Your task to perform on an android device: change the upload size in google photos Image 0: 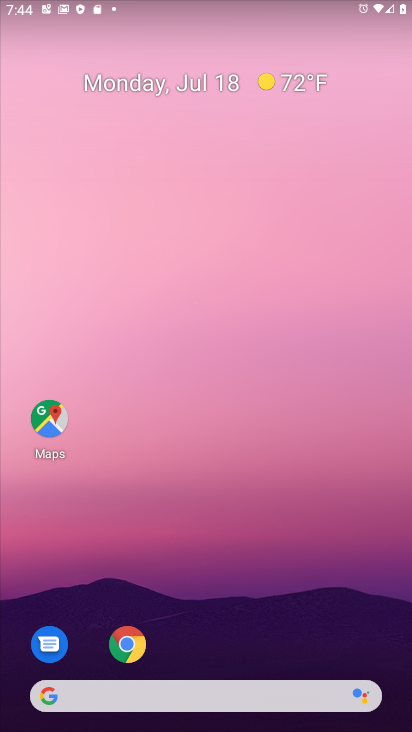
Step 0: drag from (401, 671) to (311, 90)
Your task to perform on an android device: change the upload size in google photos Image 1: 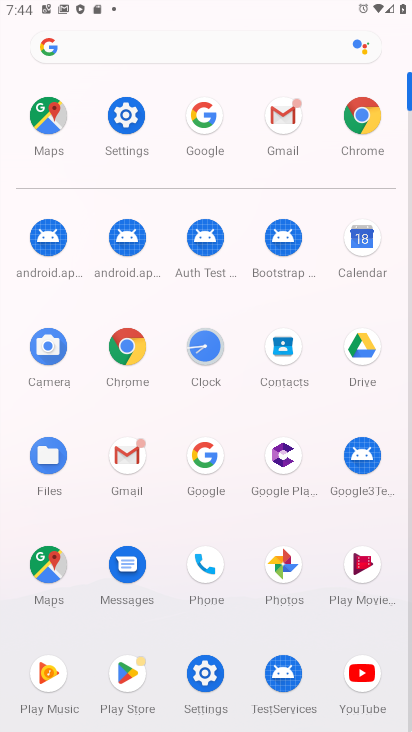
Step 1: click (268, 561)
Your task to perform on an android device: change the upload size in google photos Image 2: 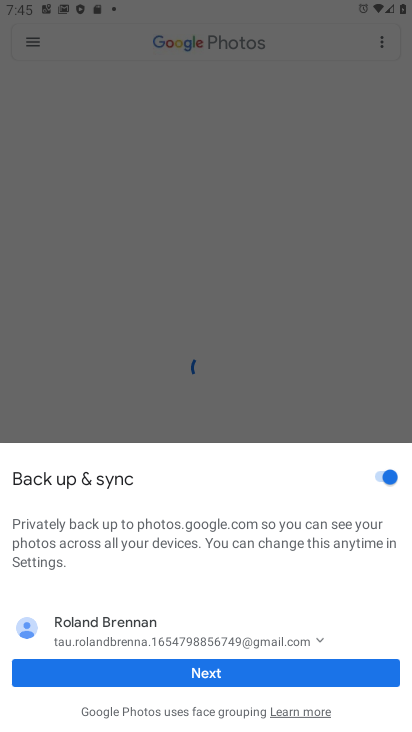
Step 2: click (167, 669)
Your task to perform on an android device: change the upload size in google photos Image 3: 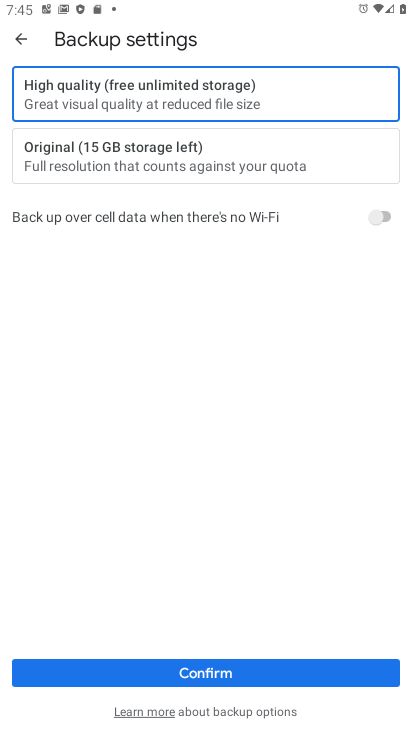
Step 3: click (167, 669)
Your task to perform on an android device: change the upload size in google photos Image 4: 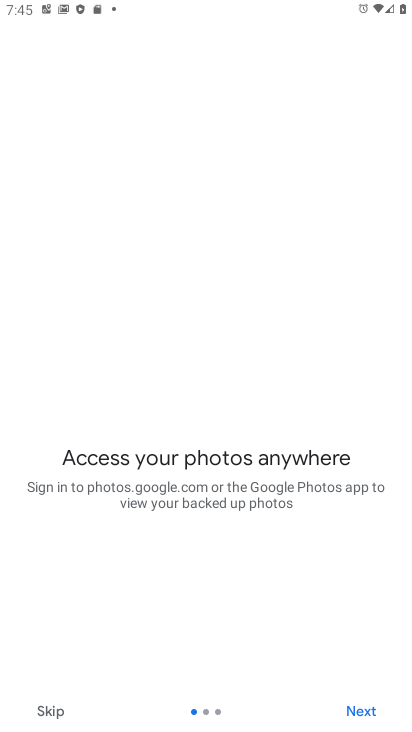
Step 4: click (345, 701)
Your task to perform on an android device: change the upload size in google photos Image 5: 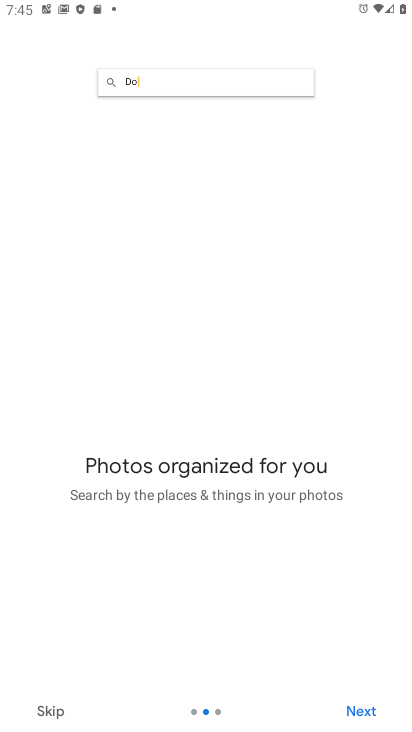
Step 5: click (350, 706)
Your task to perform on an android device: change the upload size in google photos Image 6: 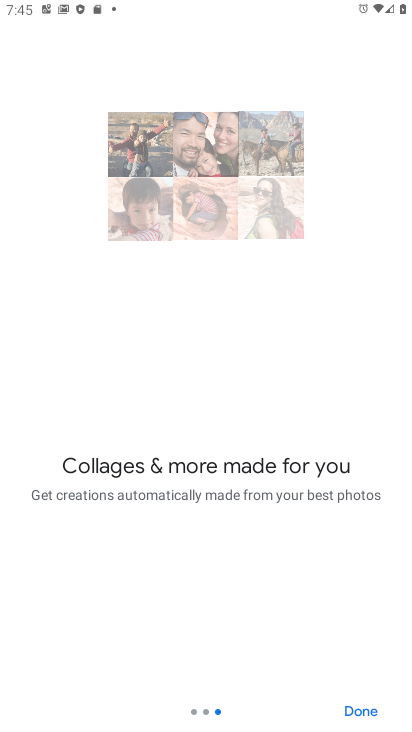
Step 6: click (350, 706)
Your task to perform on an android device: change the upload size in google photos Image 7: 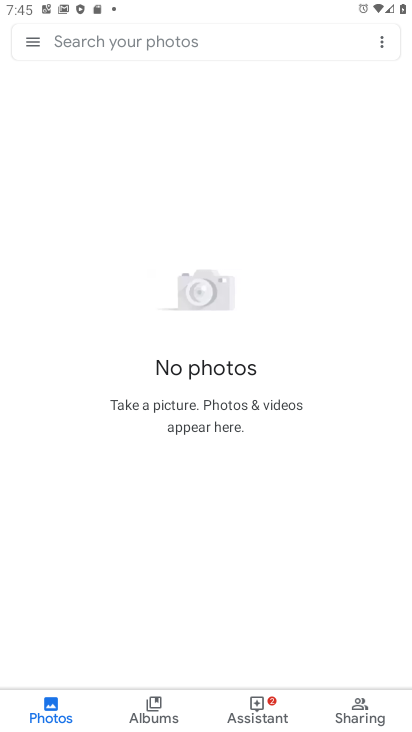
Step 7: click (34, 40)
Your task to perform on an android device: change the upload size in google photos Image 8: 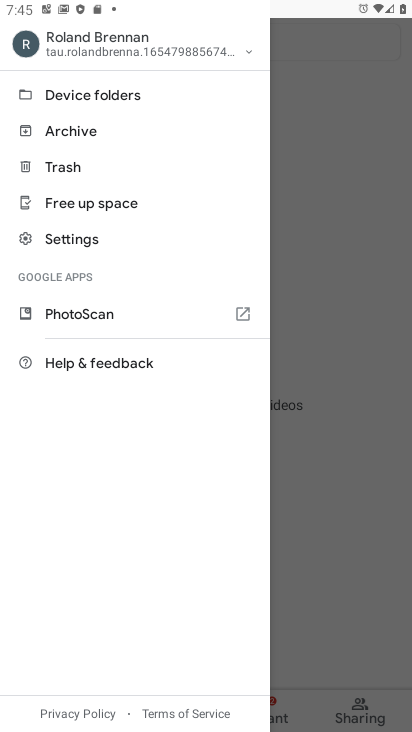
Step 8: click (83, 247)
Your task to perform on an android device: change the upload size in google photos Image 9: 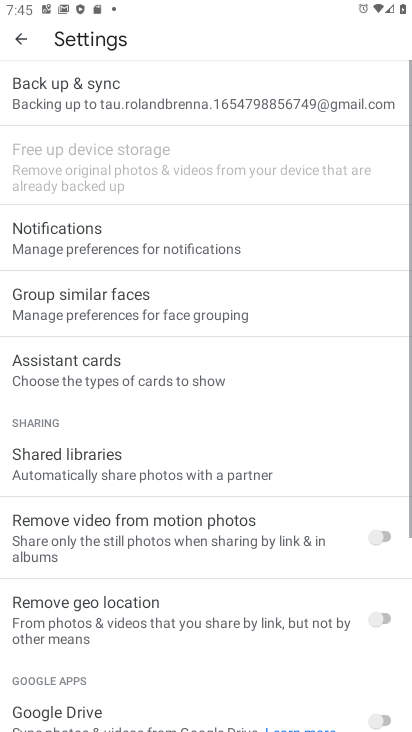
Step 9: click (71, 104)
Your task to perform on an android device: change the upload size in google photos Image 10: 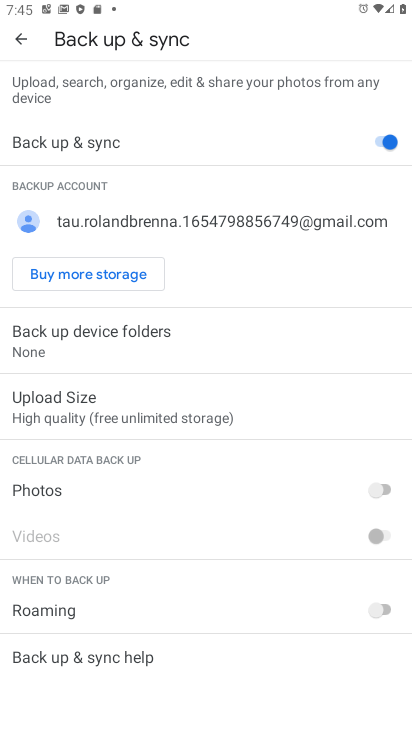
Step 10: click (108, 419)
Your task to perform on an android device: change the upload size in google photos Image 11: 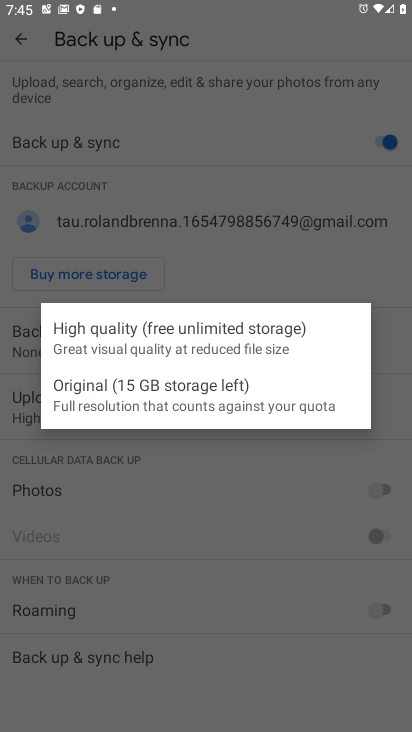
Step 11: click (127, 404)
Your task to perform on an android device: change the upload size in google photos Image 12: 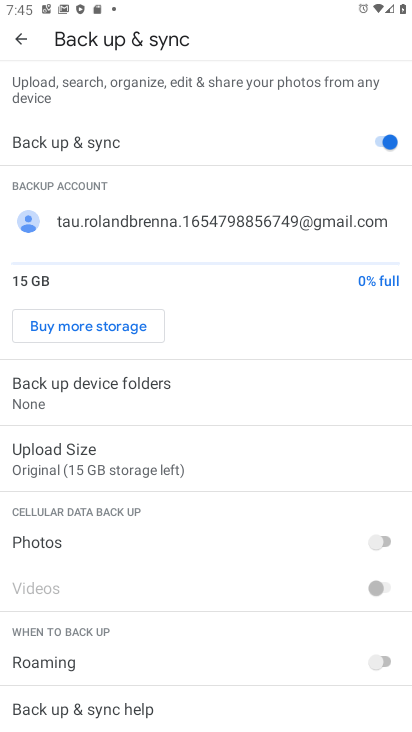
Step 12: task complete